Your task to perform on an android device: open app "Adobe Express: Graphic Design" (install if not already installed) Image 0: 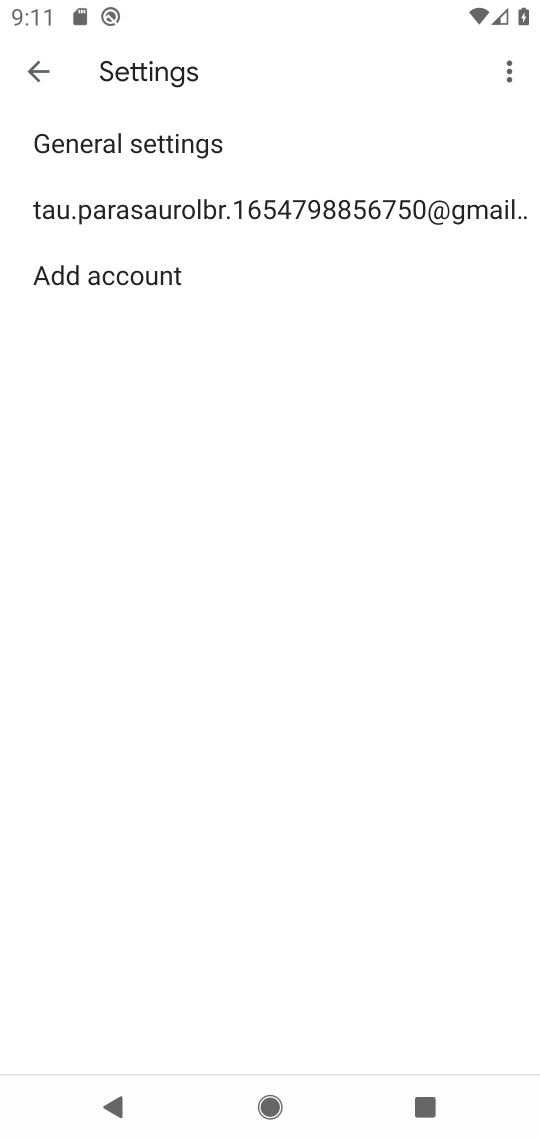
Step 0: press home button
Your task to perform on an android device: open app "Adobe Express: Graphic Design" (install if not already installed) Image 1: 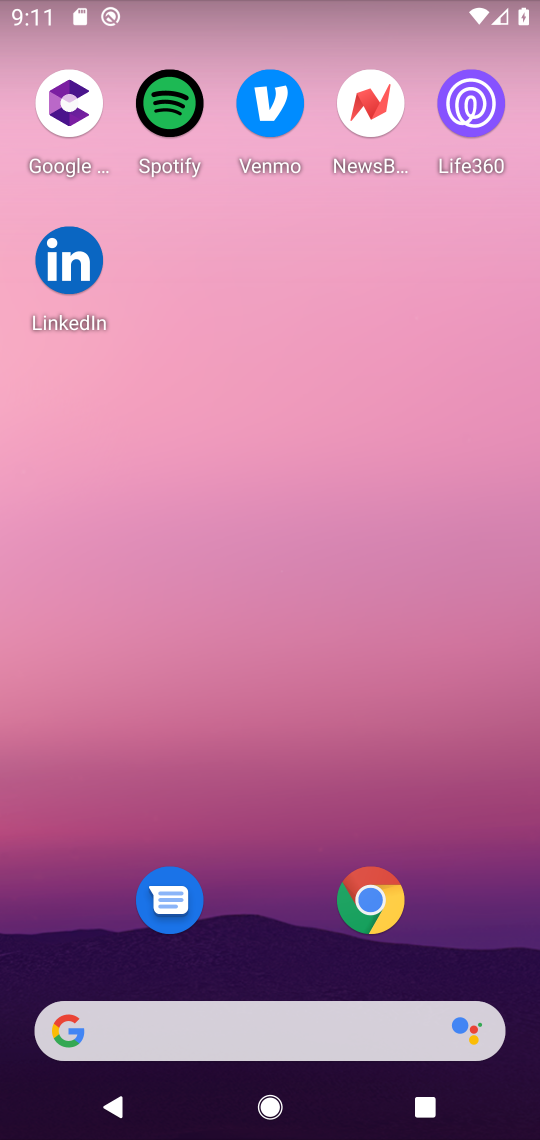
Step 1: drag from (250, 966) to (255, 276)
Your task to perform on an android device: open app "Adobe Express: Graphic Design" (install if not already installed) Image 2: 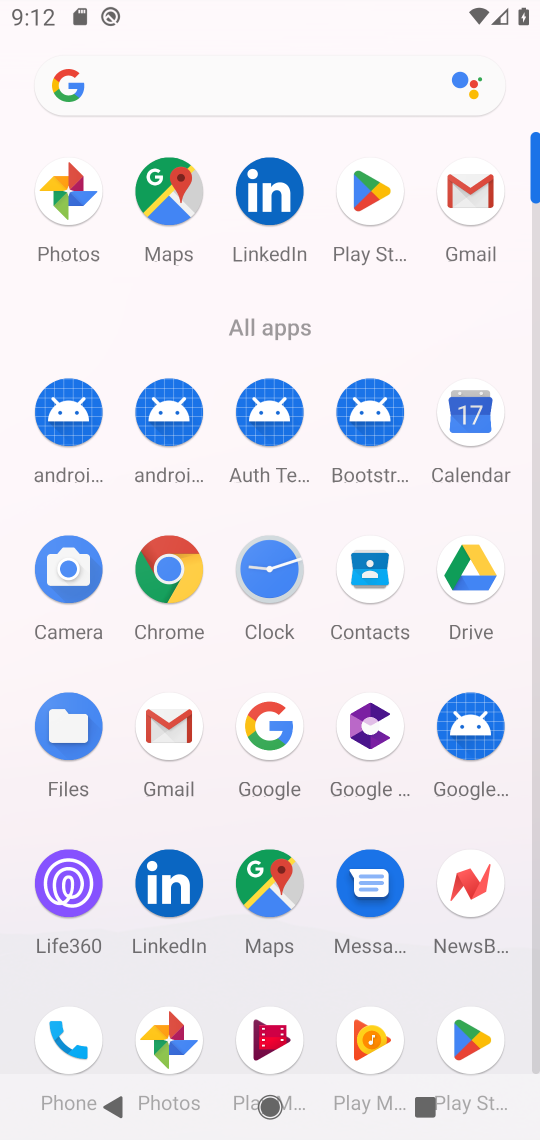
Step 2: click (401, 209)
Your task to perform on an android device: open app "Adobe Express: Graphic Design" (install if not already installed) Image 3: 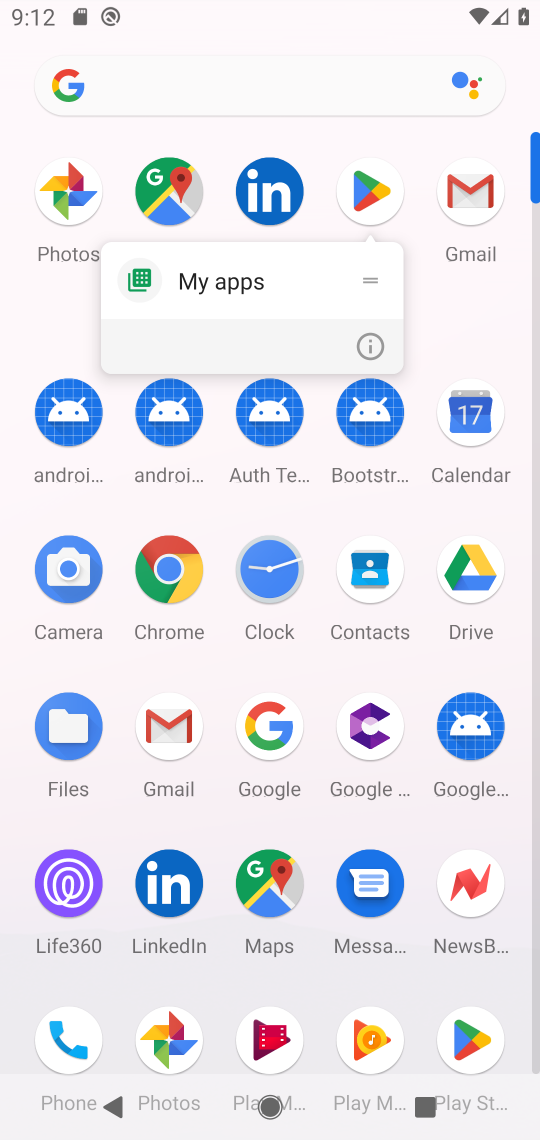
Step 3: click (376, 194)
Your task to perform on an android device: open app "Adobe Express: Graphic Design" (install if not already installed) Image 4: 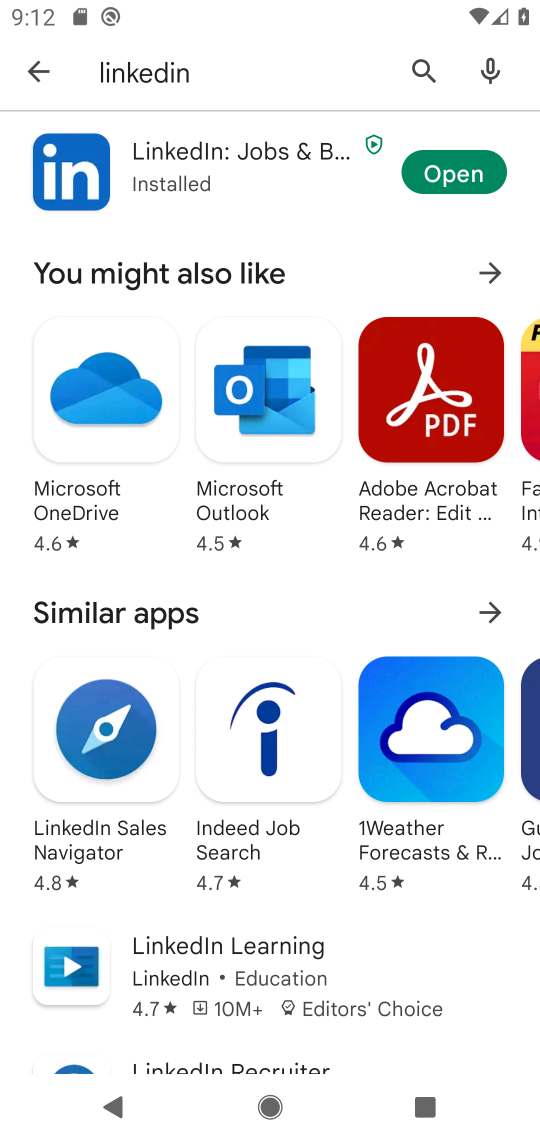
Step 4: click (38, 67)
Your task to perform on an android device: open app "Adobe Express: Graphic Design" (install if not already installed) Image 5: 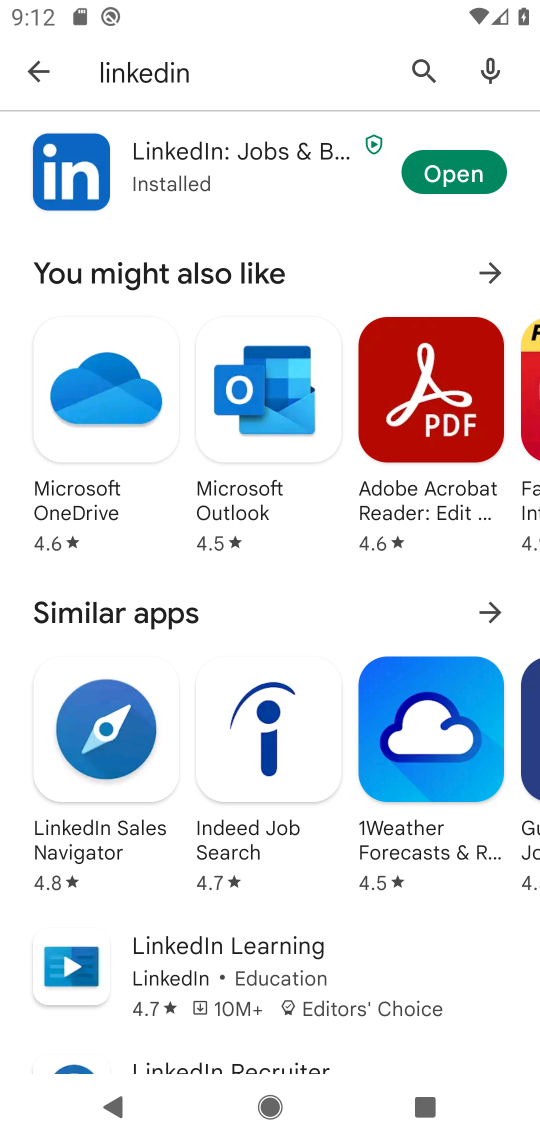
Step 5: click (37, 70)
Your task to perform on an android device: open app "Adobe Express: Graphic Design" (install if not already installed) Image 6: 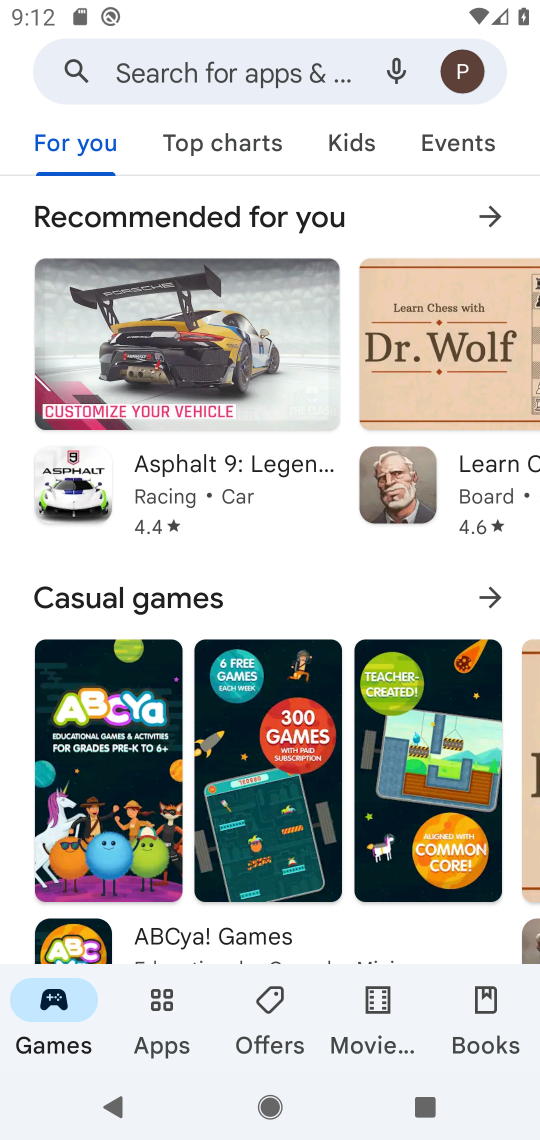
Step 6: click (114, 70)
Your task to perform on an android device: open app "Adobe Express: Graphic Design" (install if not already installed) Image 7: 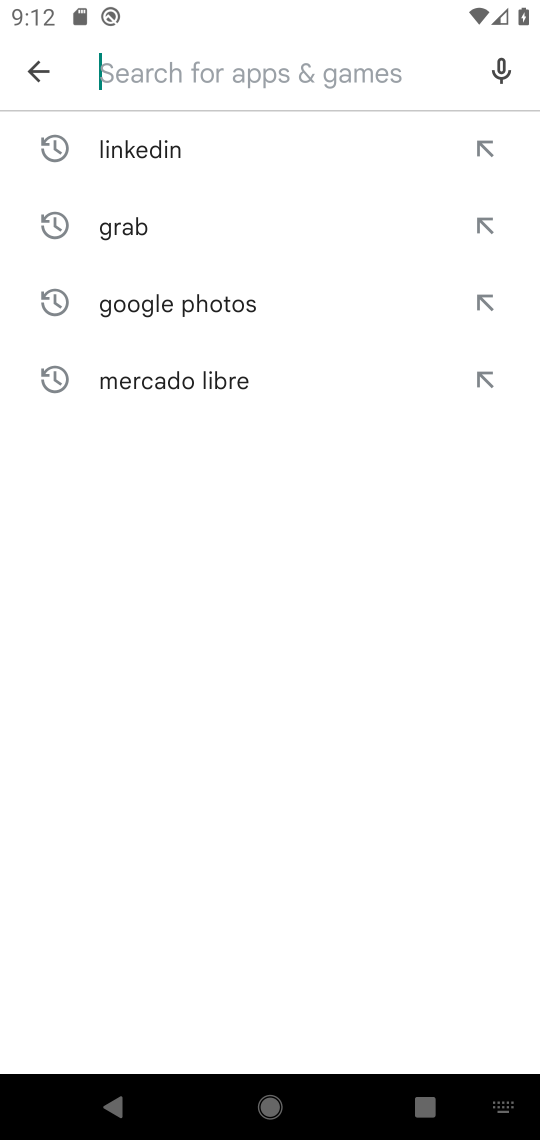
Step 7: type "Adobe Express: Graphic Design"
Your task to perform on an android device: open app "Adobe Express: Graphic Design" (install if not already installed) Image 8: 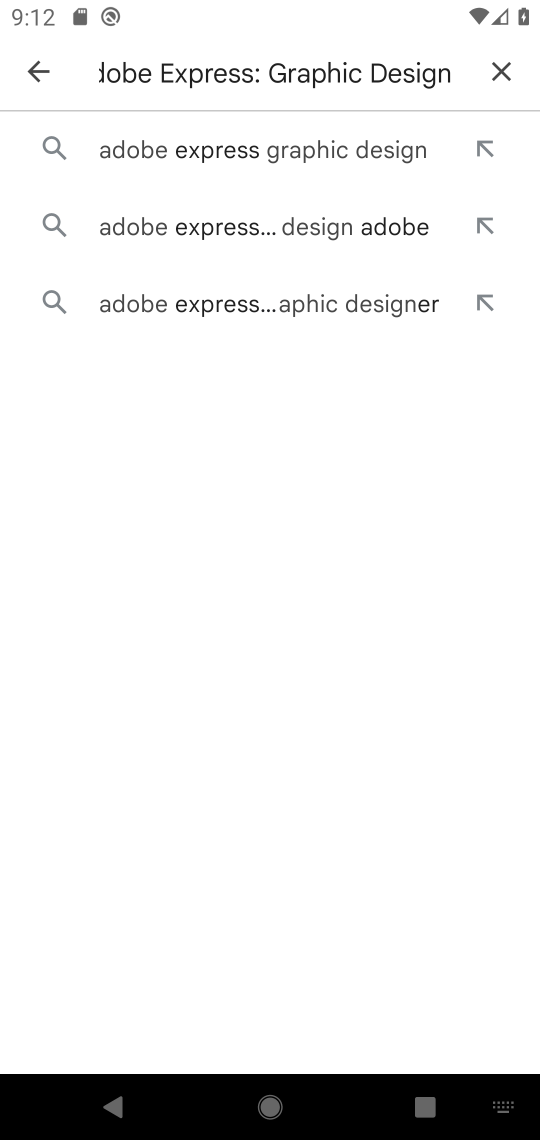
Step 8: click (298, 146)
Your task to perform on an android device: open app "Adobe Express: Graphic Design" (install if not already installed) Image 9: 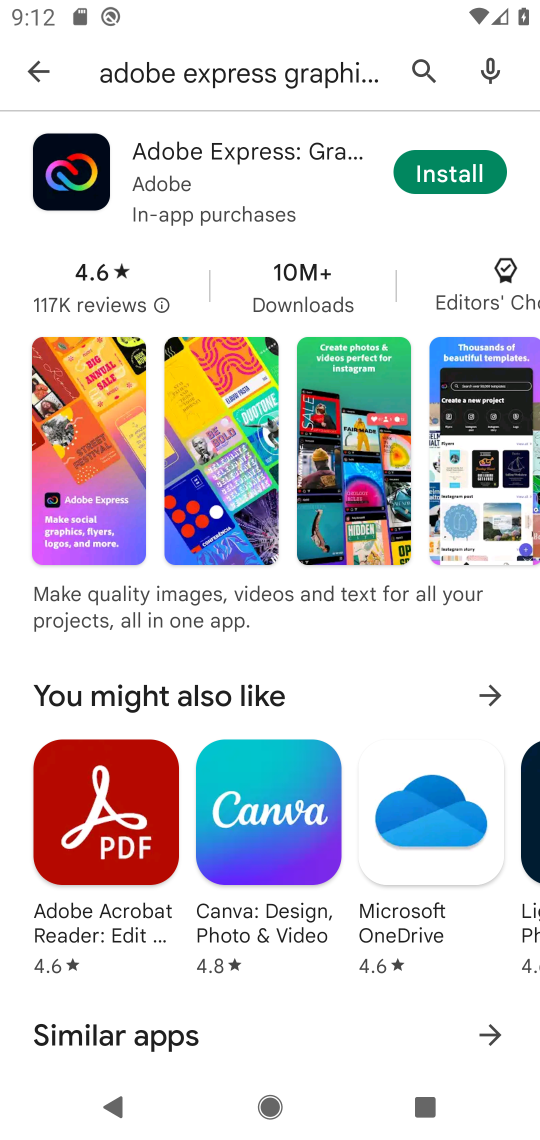
Step 9: click (483, 176)
Your task to perform on an android device: open app "Adobe Express: Graphic Design" (install if not already installed) Image 10: 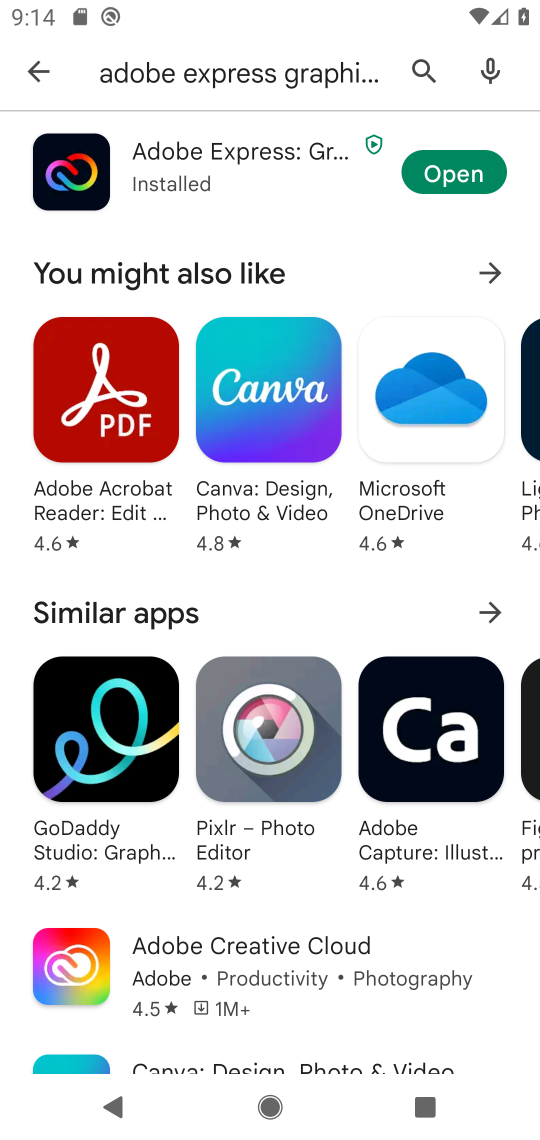
Step 10: click (477, 179)
Your task to perform on an android device: open app "Adobe Express: Graphic Design" (install if not already installed) Image 11: 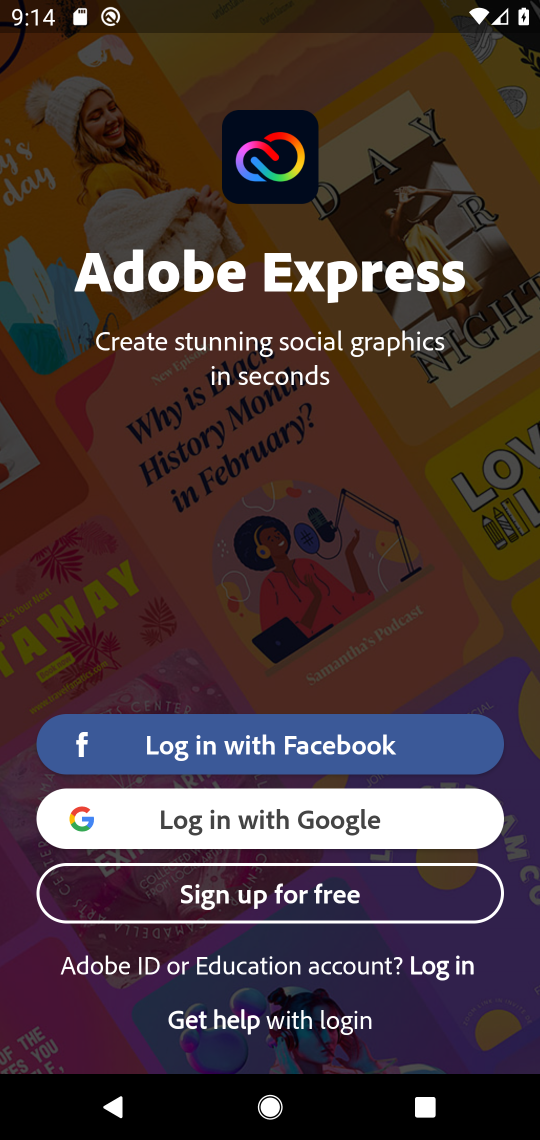
Step 11: task complete